Your task to perform on an android device: Go to Maps Image 0: 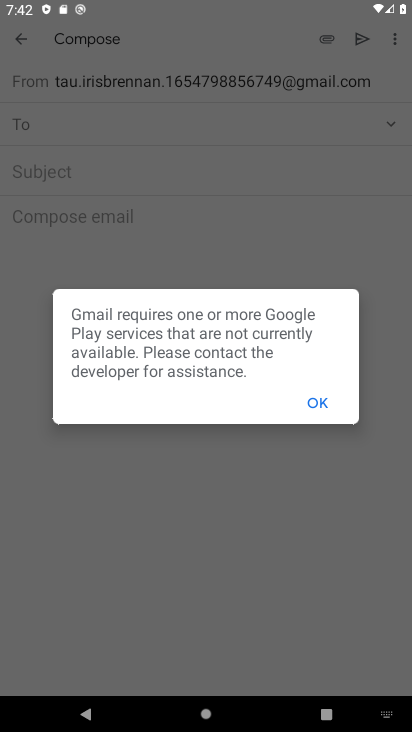
Step 0: press back button
Your task to perform on an android device: Go to Maps Image 1: 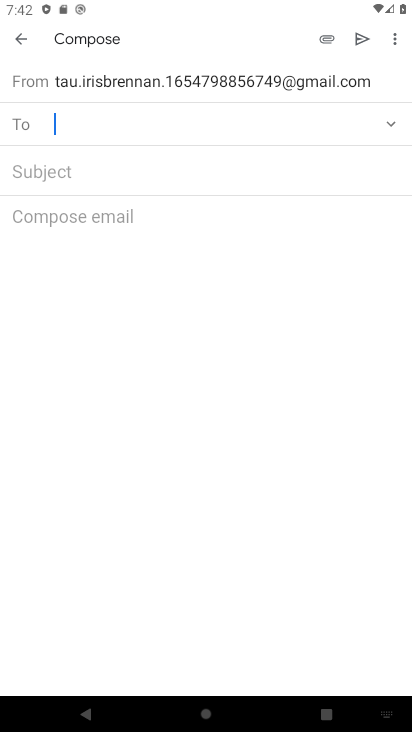
Step 1: press home button
Your task to perform on an android device: Go to Maps Image 2: 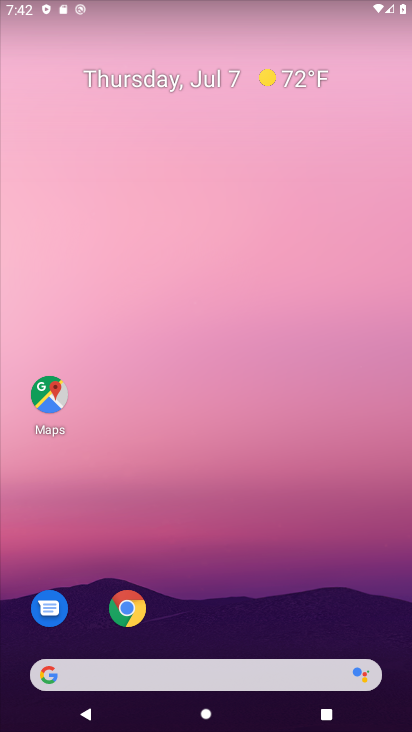
Step 2: click (45, 397)
Your task to perform on an android device: Go to Maps Image 3: 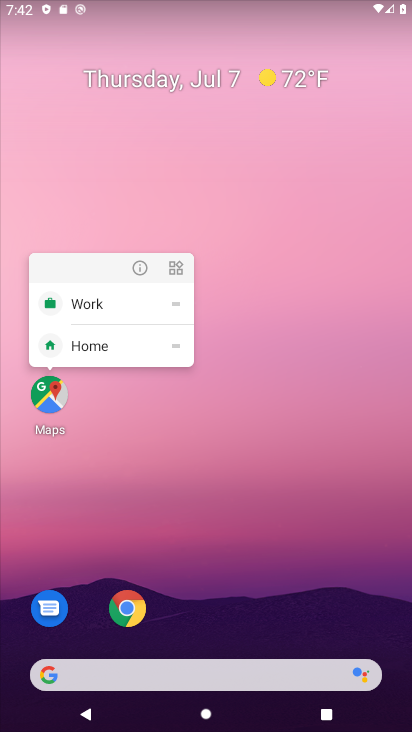
Step 3: click (28, 384)
Your task to perform on an android device: Go to Maps Image 4: 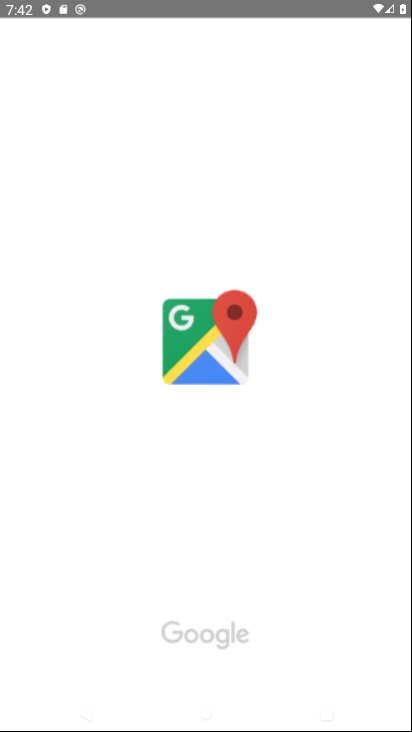
Step 4: task complete